Your task to perform on an android device: Search for sushi restaurants on Maps Image 0: 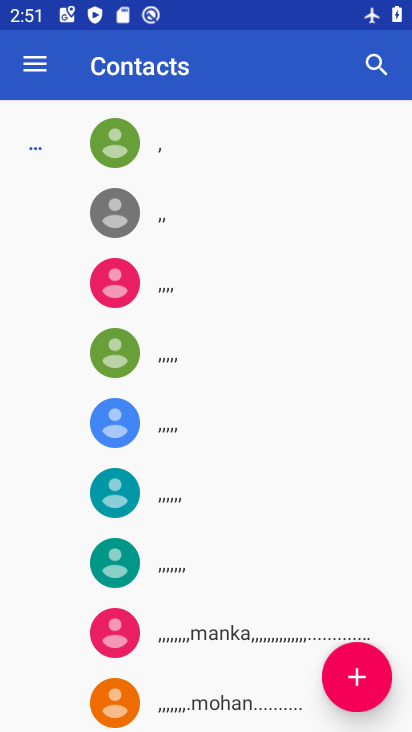
Step 0: press home button
Your task to perform on an android device: Search for sushi restaurants on Maps Image 1: 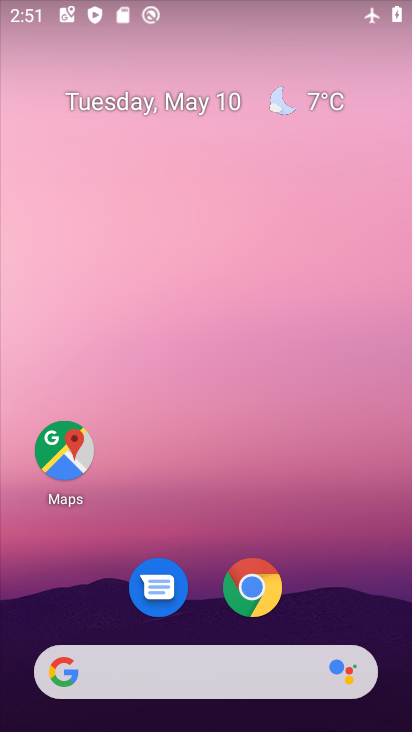
Step 1: click (79, 446)
Your task to perform on an android device: Search for sushi restaurants on Maps Image 2: 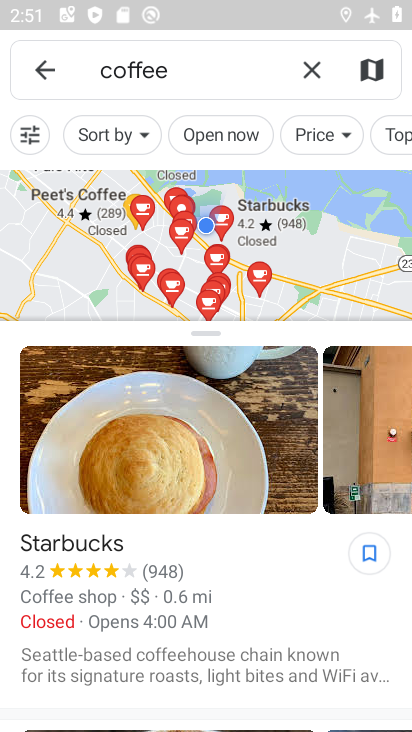
Step 2: click (230, 64)
Your task to perform on an android device: Search for sushi restaurants on Maps Image 3: 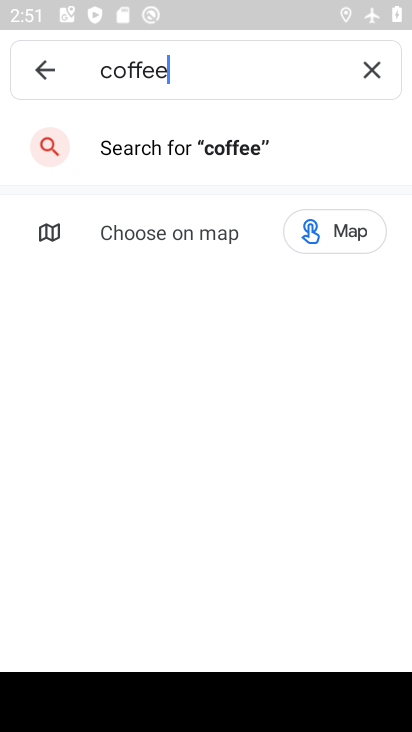
Step 3: click (380, 68)
Your task to perform on an android device: Search for sushi restaurants on Maps Image 4: 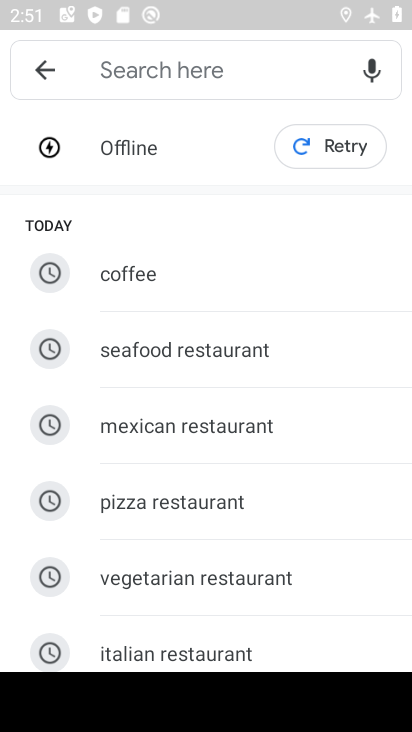
Step 4: drag from (209, 607) to (206, 321)
Your task to perform on an android device: Search for sushi restaurants on Maps Image 5: 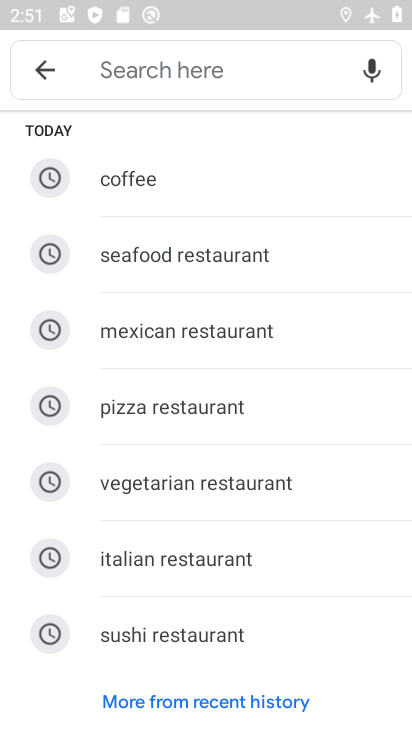
Step 5: click (205, 633)
Your task to perform on an android device: Search for sushi restaurants on Maps Image 6: 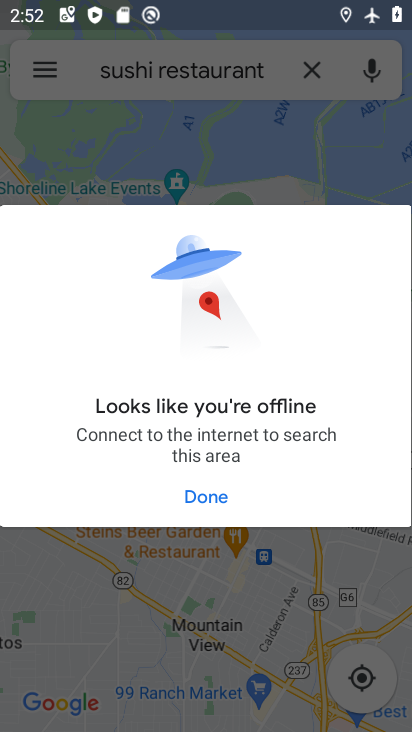
Step 6: task complete